Your task to perform on an android device: toggle show notifications on the lock screen Image 0: 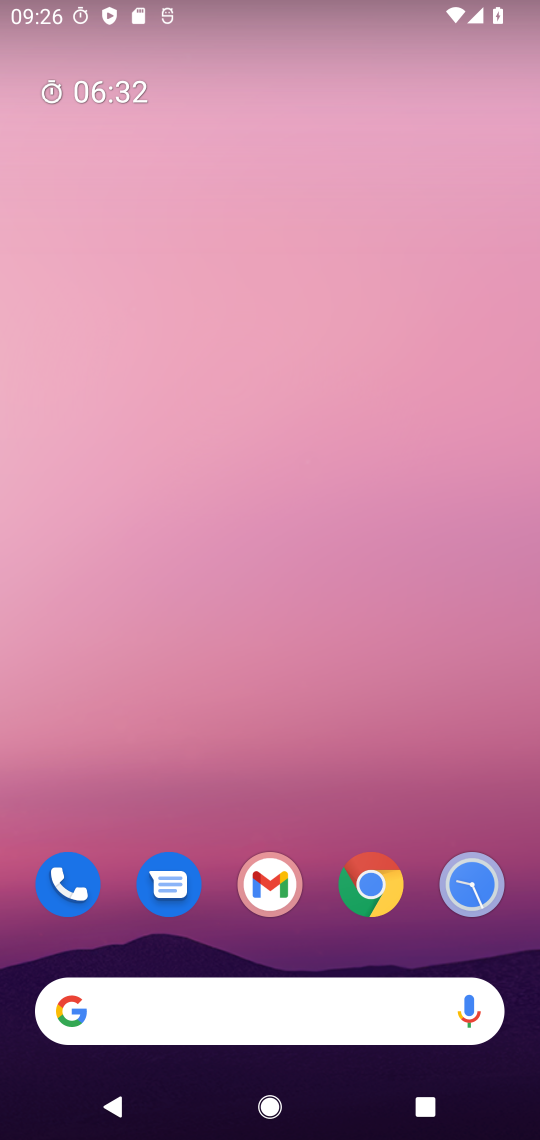
Step 0: drag from (246, 821) to (202, 71)
Your task to perform on an android device: toggle show notifications on the lock screen Image 1: 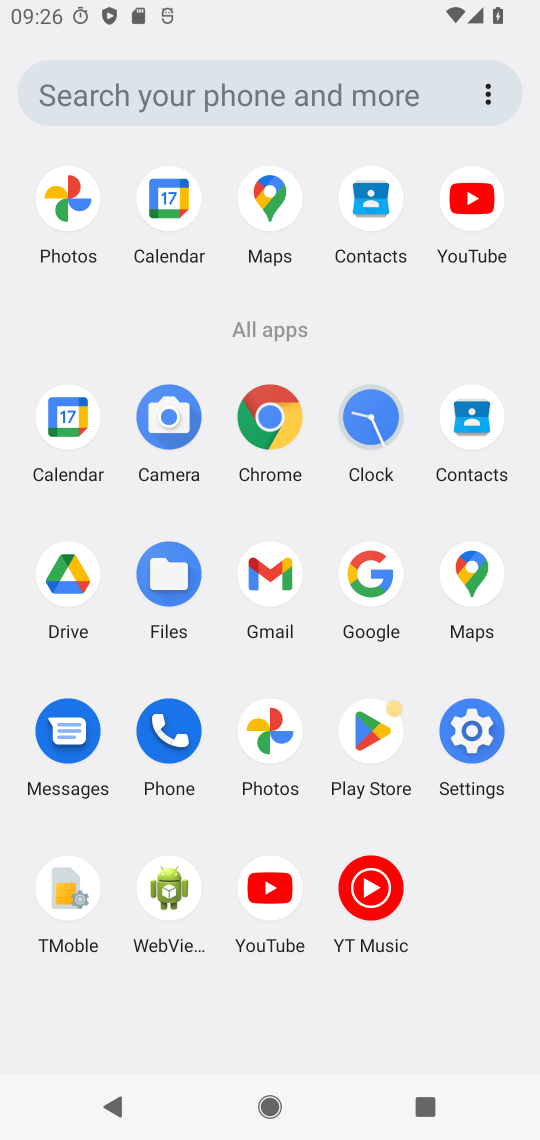
Step 1: click (460, 747)
Your task to perform on an android device: toggle show notifications on the lock screen Image 2: 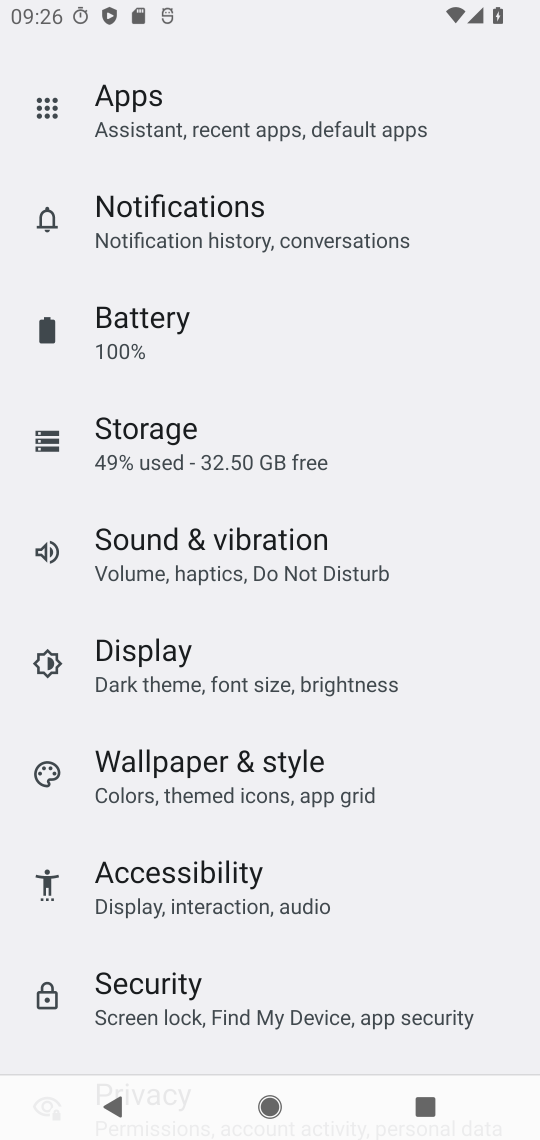
Step 2: click (207, 245)
Your task to perform on an android device: toggle show notifications on the lock screen Image 3: 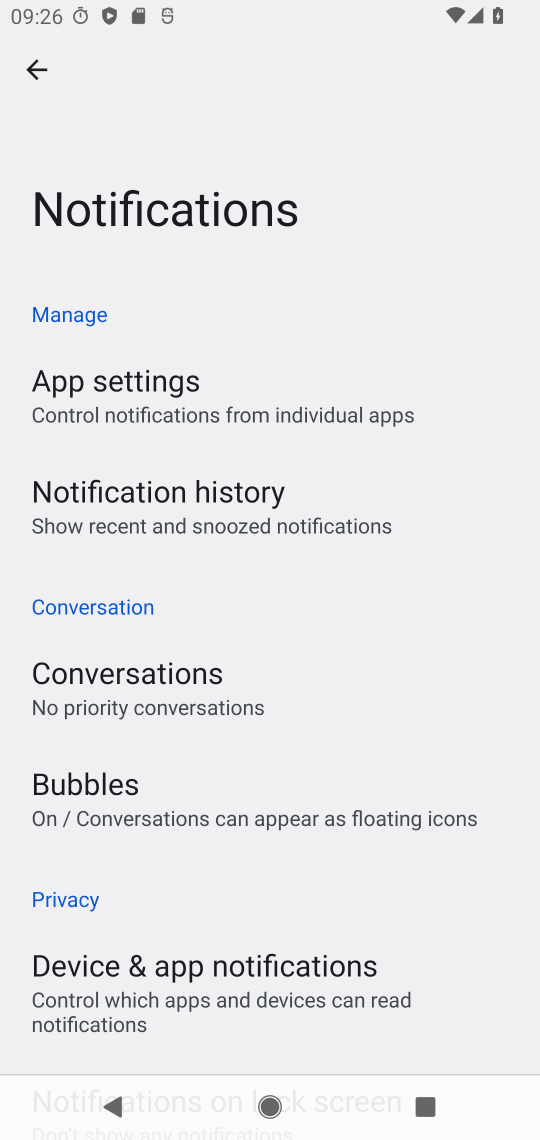
Step 3: drag from (264, 858) to (254, 406)
Your task to perform on an android device: toggle show notifications on the lock screen Image 4: 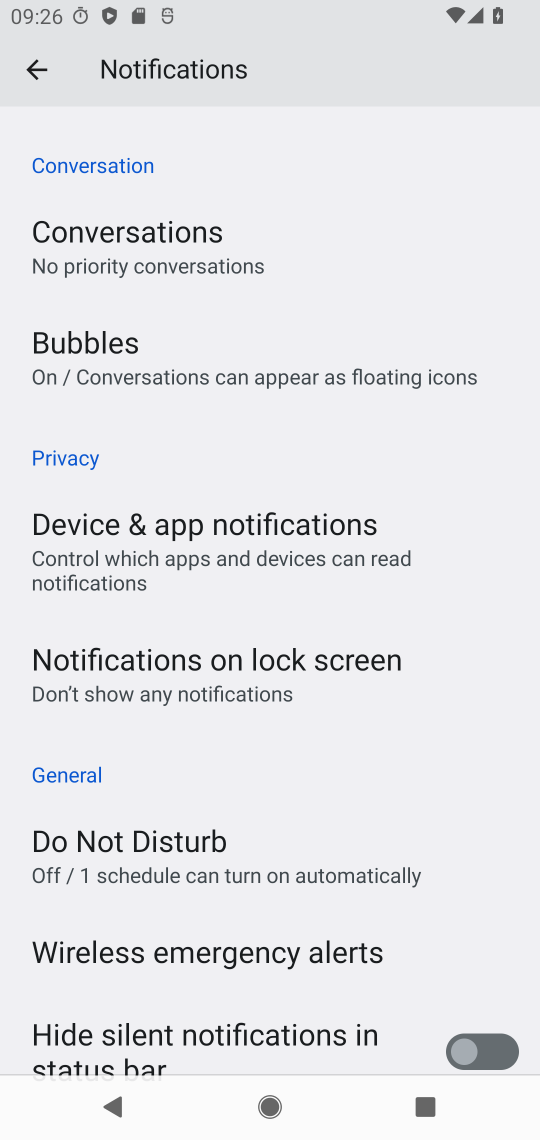
Step 4: drag from (247, 857) to (247, 345)
Your task to perform on an android device: toggle show notifications on the lock screen Image 5: 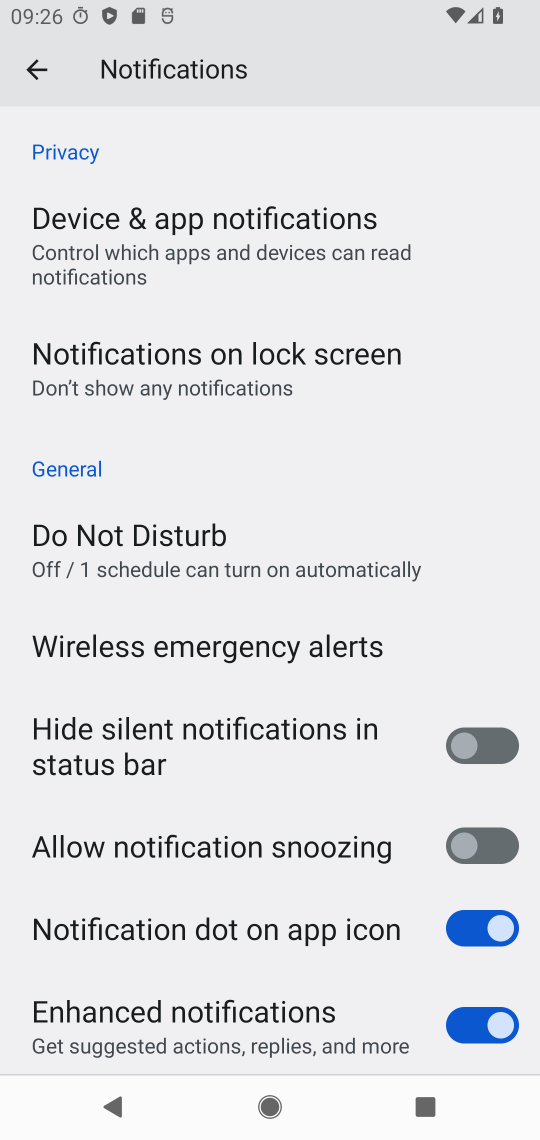
Step 5: click (250, 390)
Your task to perform on an android device: toggle show notifications on the lock screen Image 6: 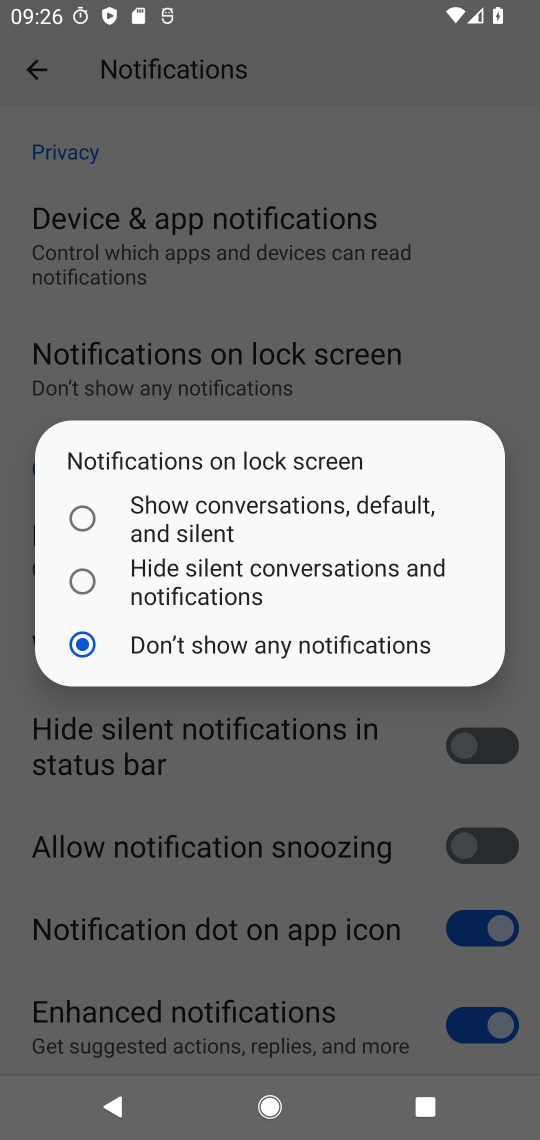
Step 6: click (262, 519)
Your task to perform on an android device: toggle show notifications on the lock screen Image 7: 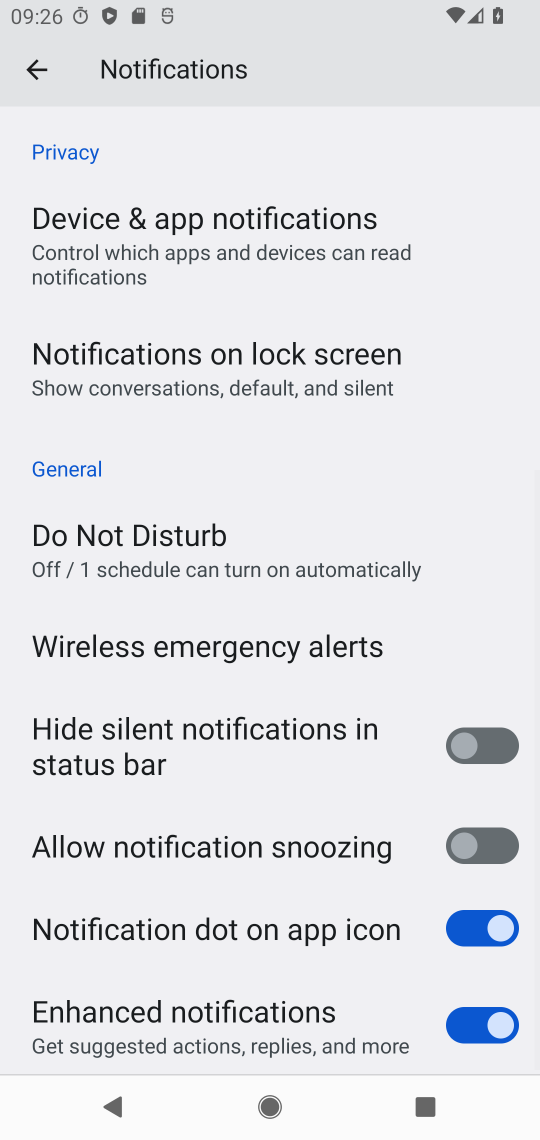
Step 7: task complete